Your task to perform on an android device: Show me popular games on the Play Store Image 0: 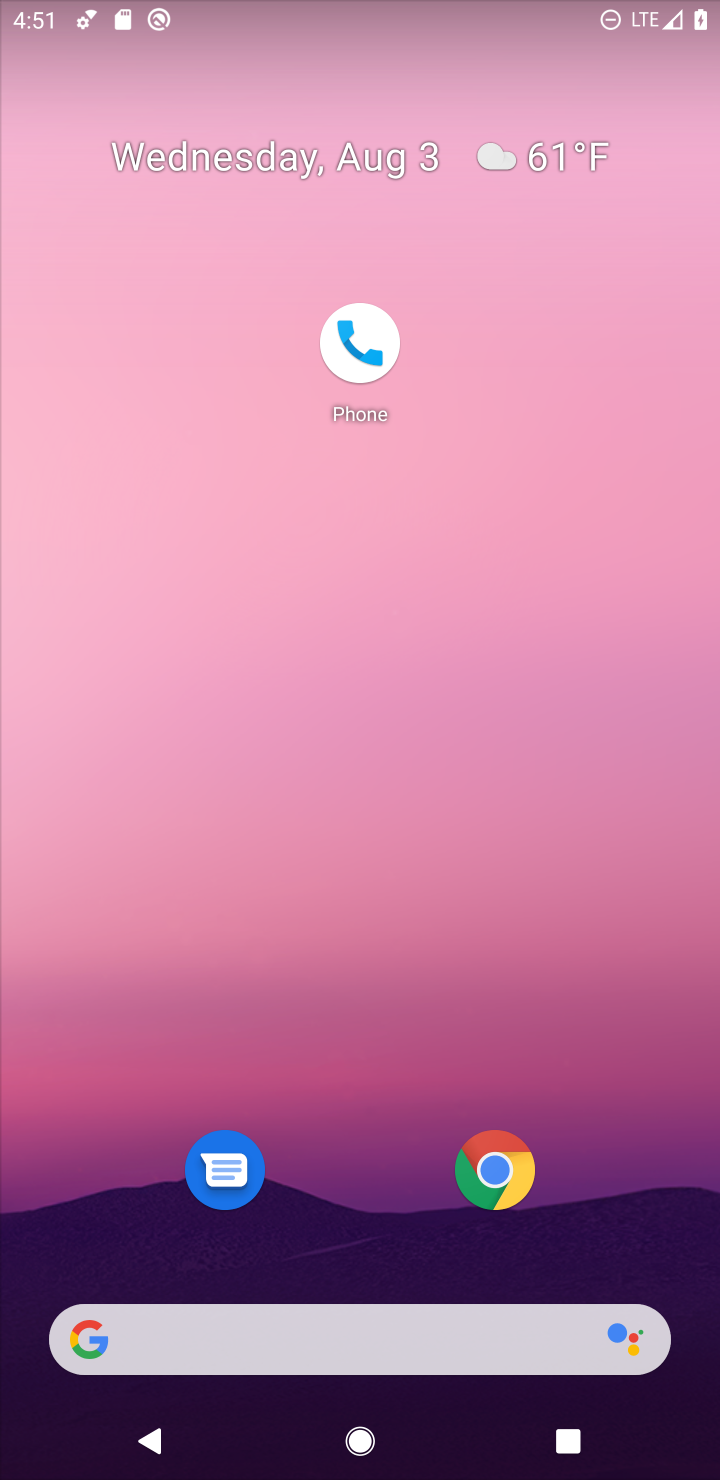
Step 0: click (411, 21)
Your task to perform on an android device: Show me popular games on the Play Store Image 1: 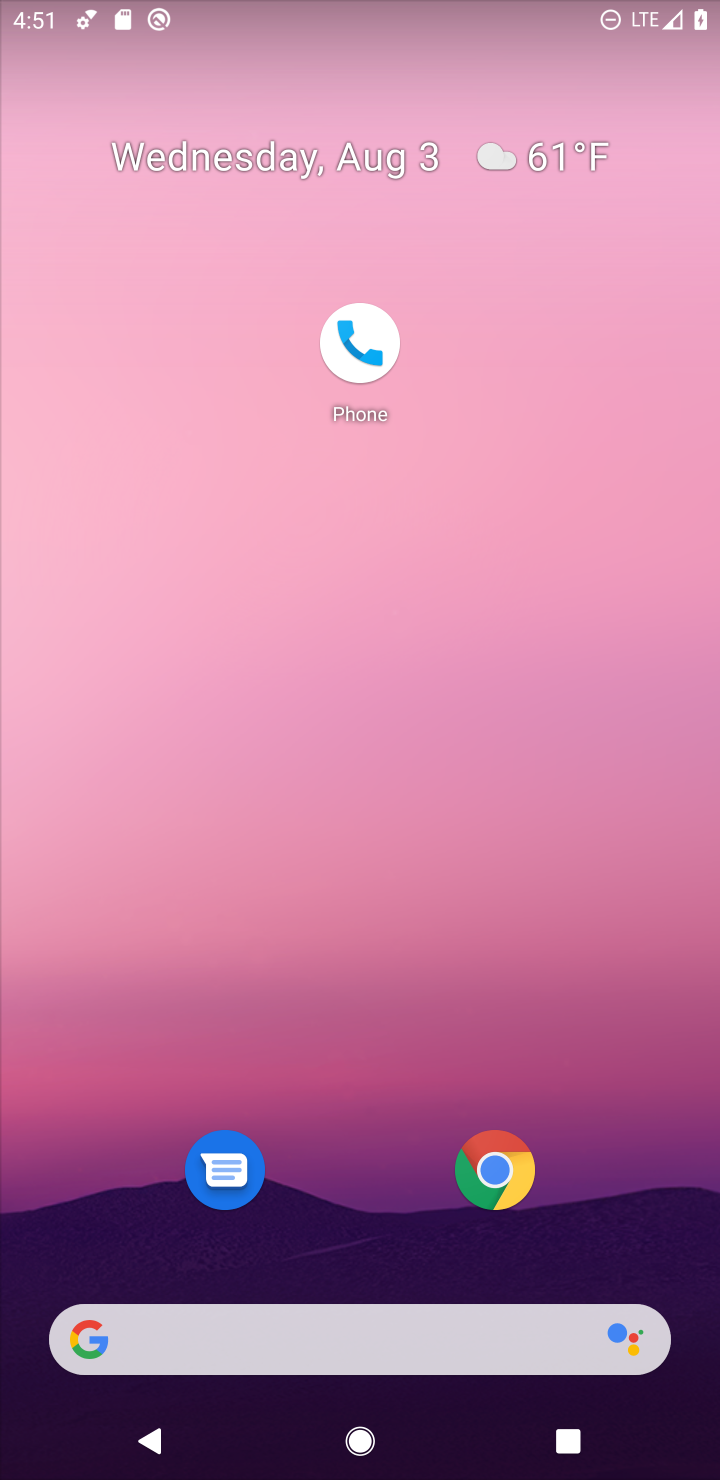
Step 1: drag from (354, 1186) to (369, 152)
Your task to perform on an android device: Show me popular games on the Play Store Image 2: 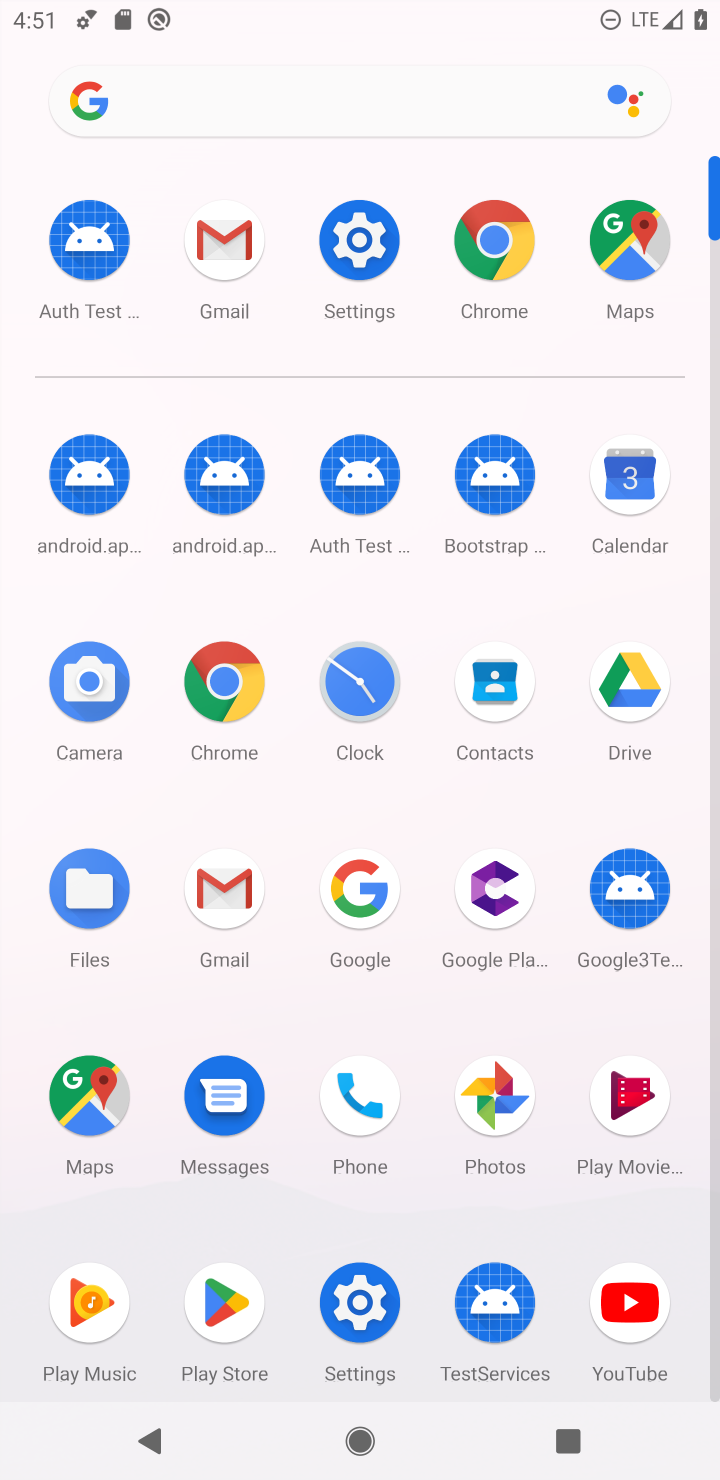
Step 2: click (219, 1316)
Your task to perform on an android device: Show me popular games on the Play Store Image 3: 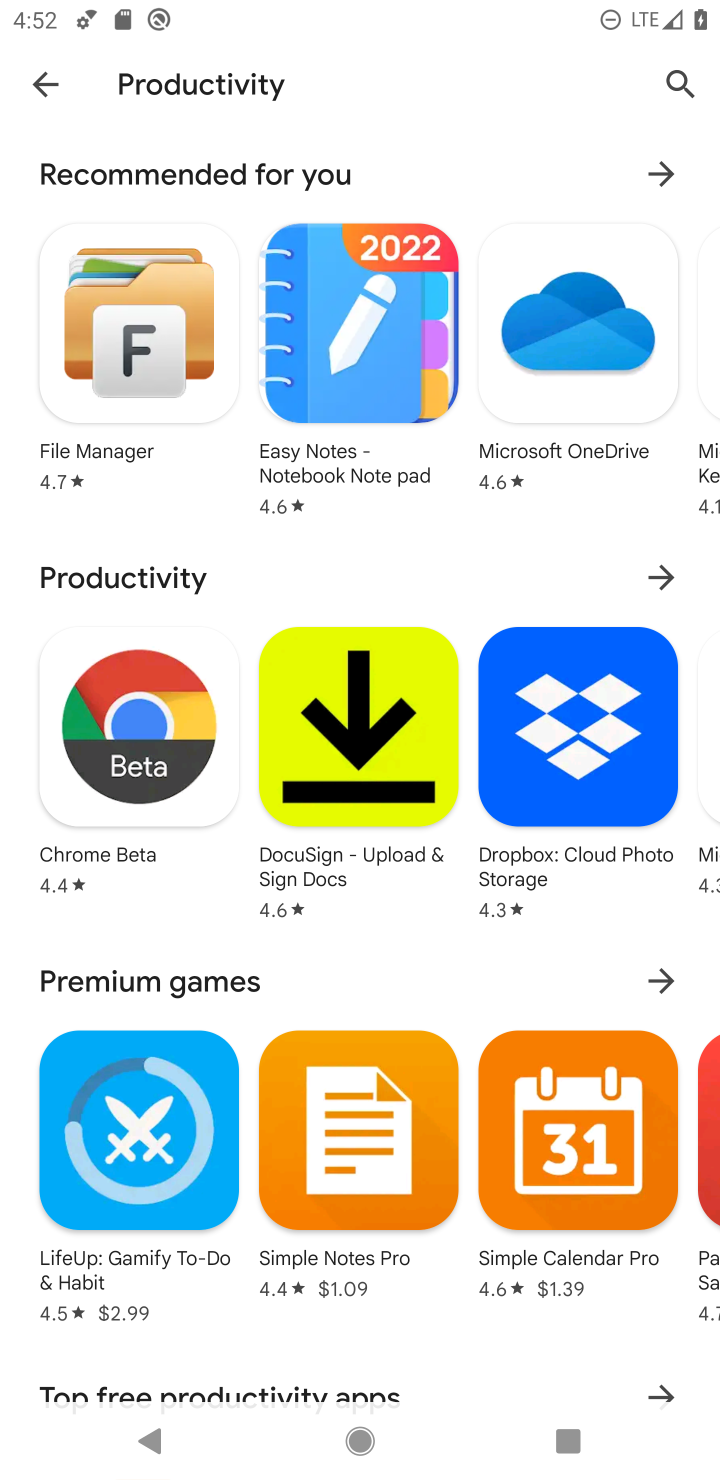
Step 3: click (41, 95)
Your task to perform on an android device: Show me popular games on the Play Store Image 4: 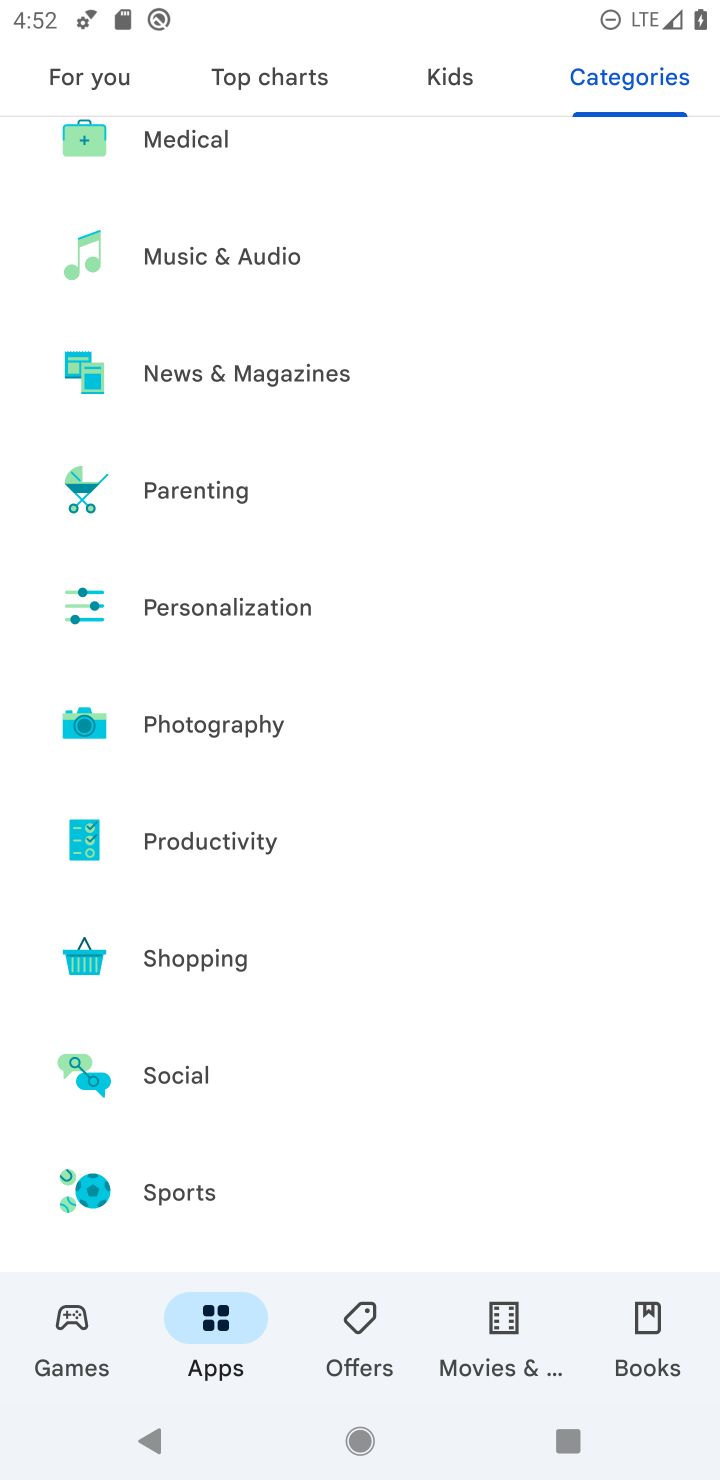
Step 4: click (45, 1376)
Your task to perform on an android device: Show me popular games on the Play Store Image 5: 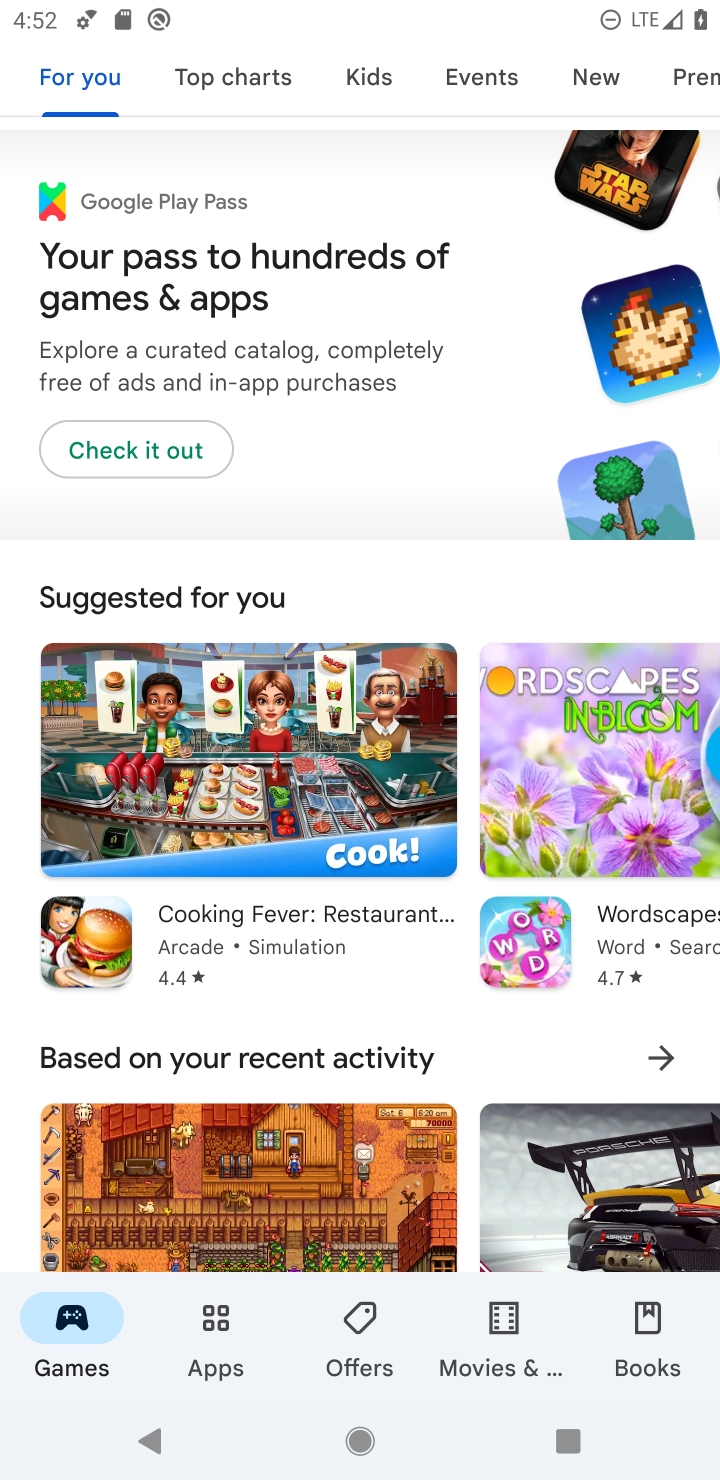
Step 5: task complete